Your task to perform on an android device: Empty the shopping cart on amazon. Add duracell triple a to the cart on amazon, then select checkout. Image 0: 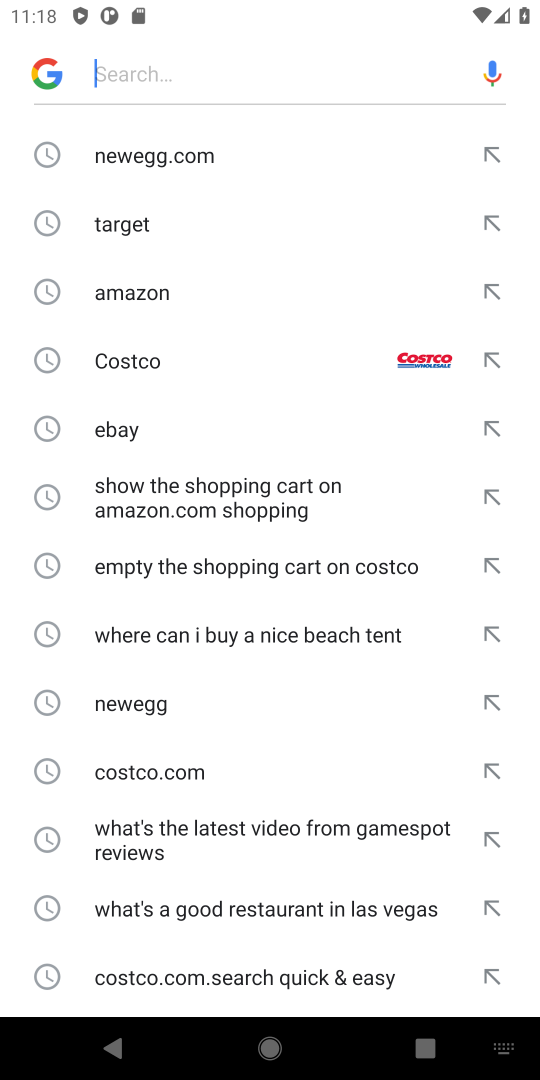
Step 0: type "amazon"
Your task to perform on an android device: Empty the shopping cart on amazon. Add duracell triple a to the cart on amazon, then select checkout. Image 1: 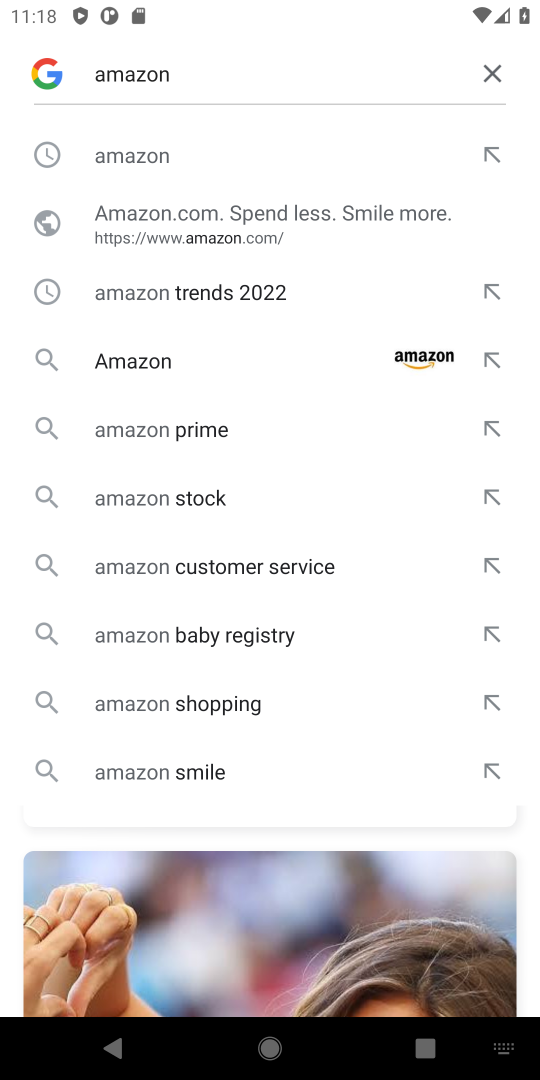
Step 1: type ""
Your task to perform on an android device: Empty the shopping cart on amazon. Add duracell triple a to the cart on amazon, then select checkout. Image 2: 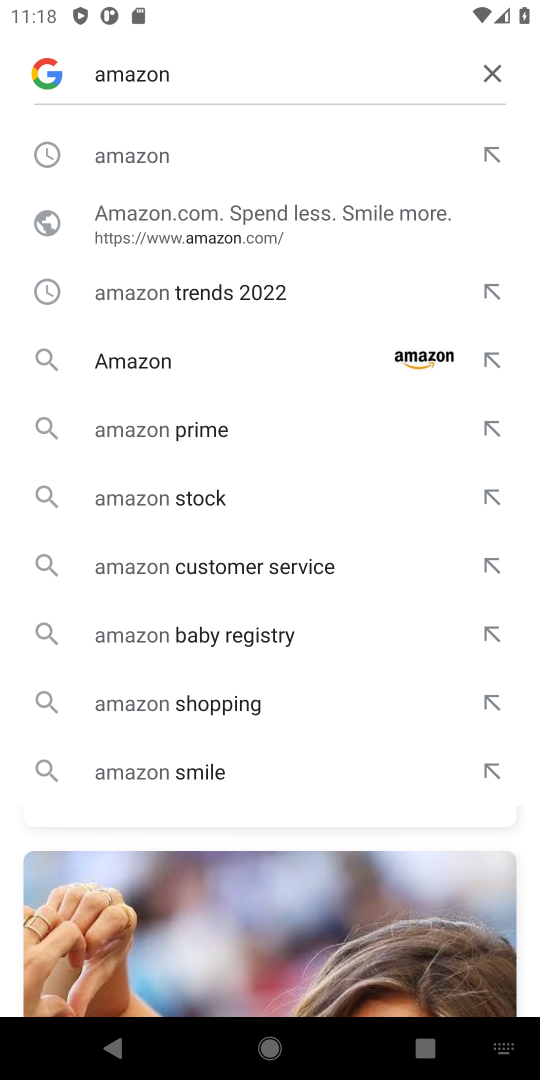
Step 2: press enter
Your task to perform on an android device: Empty the shopping cart on amazon. Add duracell triple a to the cart on amazon, then select checkout. Image 3: 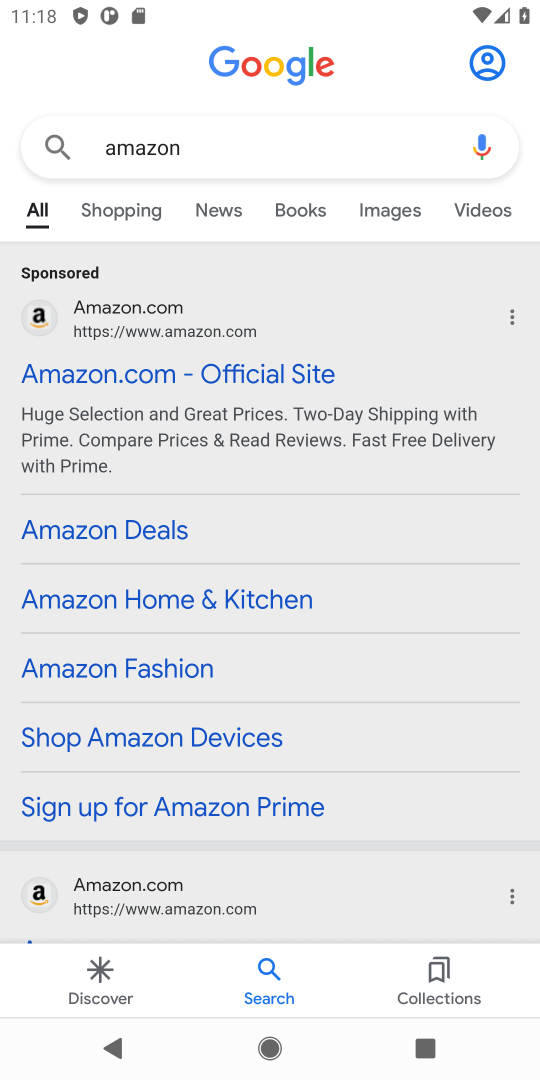
Step 3: click (158, 380)
Your task to perform on an android device: Empty the shopping cart on amazon. Add duracell triple a to the cart on amazon, then select checkout. Image 4: 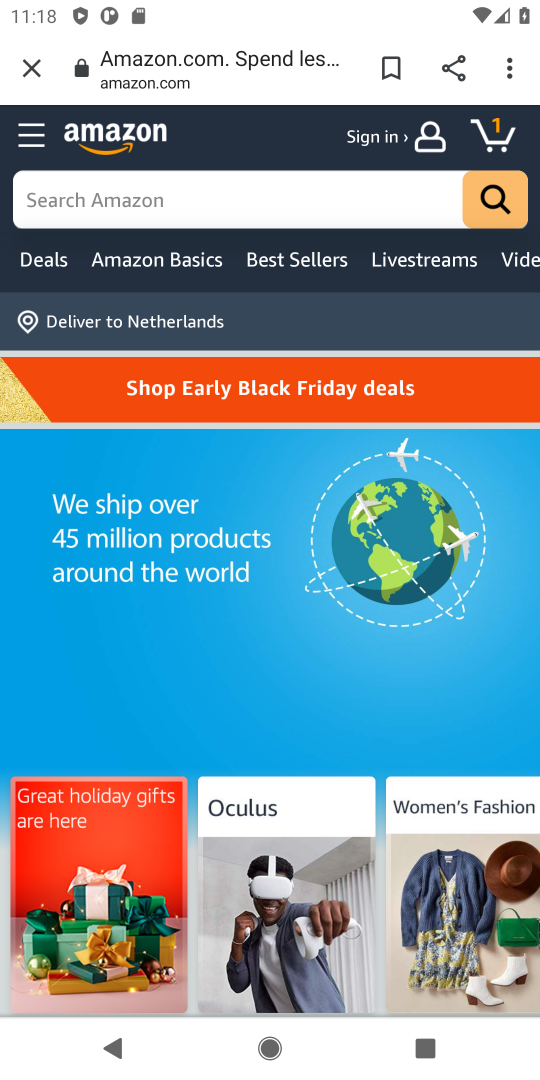
Step 4: click (481, 134)
Your task to perform on an android device: Empty the shopping cart on amazon. Add duracell triple a to the cart on amazon, then select checkout. Image 5: 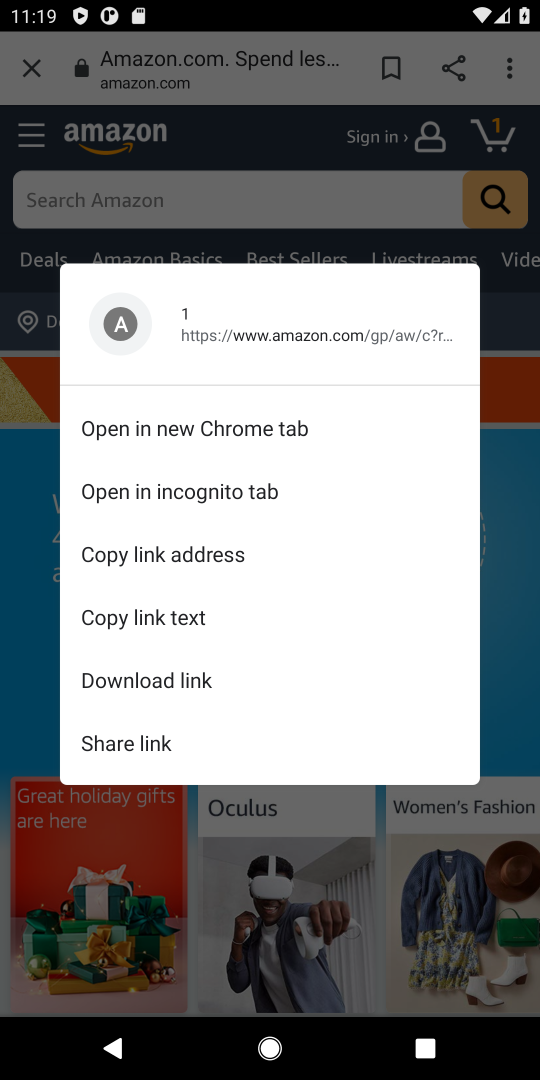
Step 5: click (521, 450)
Your task to perform on an android device: Empty the shopping cart on amazon. Add duracell triple a to the cart on amazon, then select checkout. Image 6: 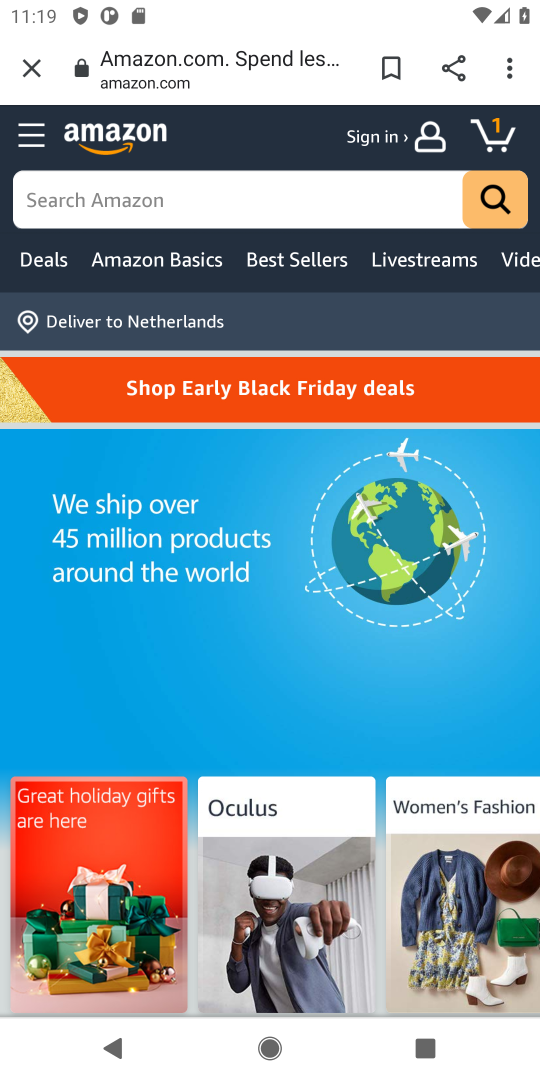
Step 6: click (494, 162)
Your task to perform on an android device: Empty the shopping cart on amazon. Add duracell triple a to the cart on amazon, then select checkout. Image 7: 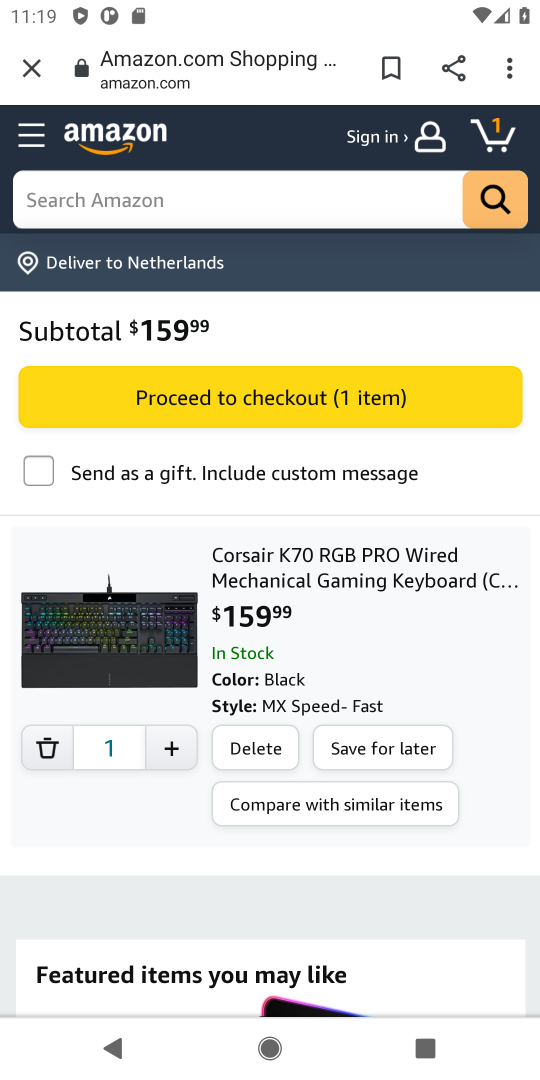
Step 7: click (39, 750)
Your task to perform on an android device: Empty the shopping cart on amazon. Add duracell triple a to the cart on amazon, then select checkout. Image 8: 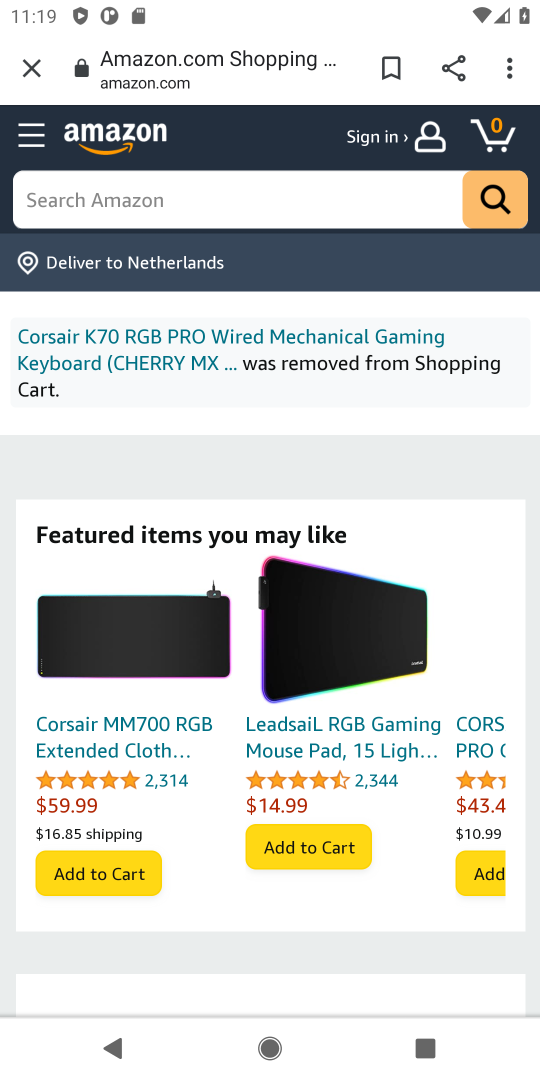
Step 8: click (199, 194)
Your task to perform on an android device: Empty the shopping cart on amazon. Add duracell triple a to the cart on amazon, then select checkout. Image 9: 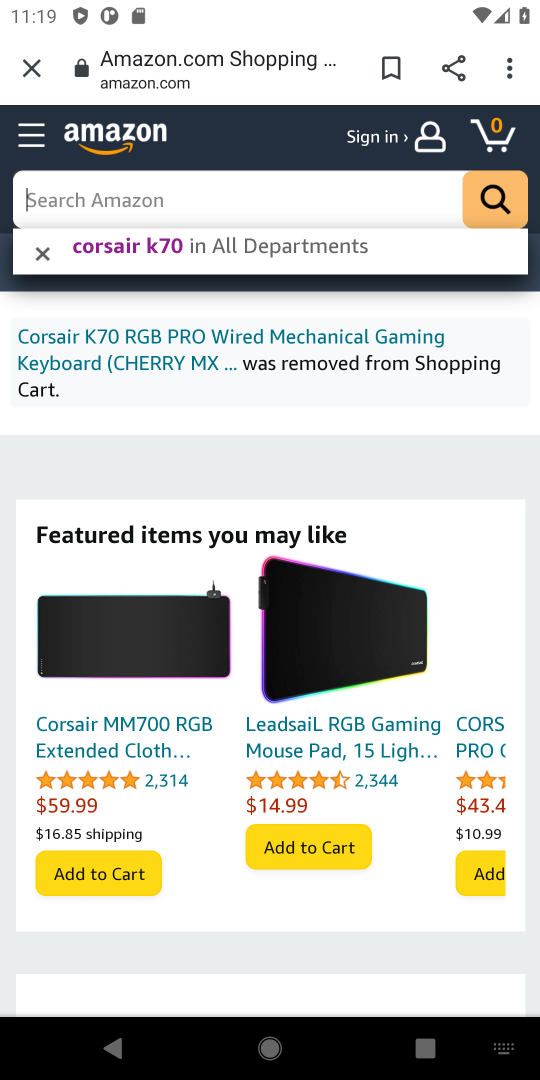
Step 9: type "duracell triple a"
Your task to perform on an android device: Empty the shopping cart on amazon. Add duracell triple a to the cart on amazon, then select checkout. Image 10: 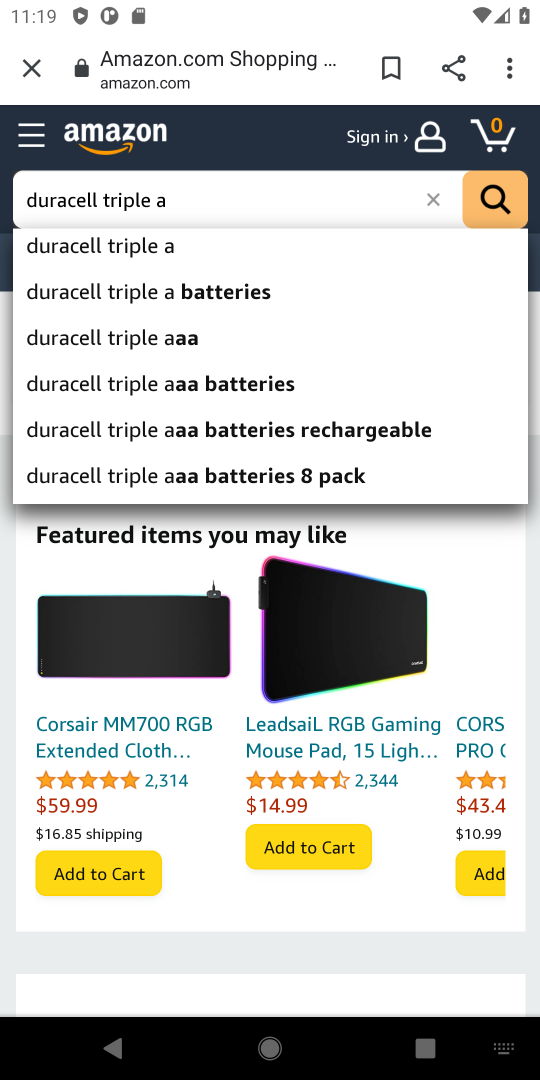
Step 10: press enter
Your task to perform on an android device: Empty the shopping cart on amazon. Add duracell triple a to the cart on amazon, then select checkout. Image 11: 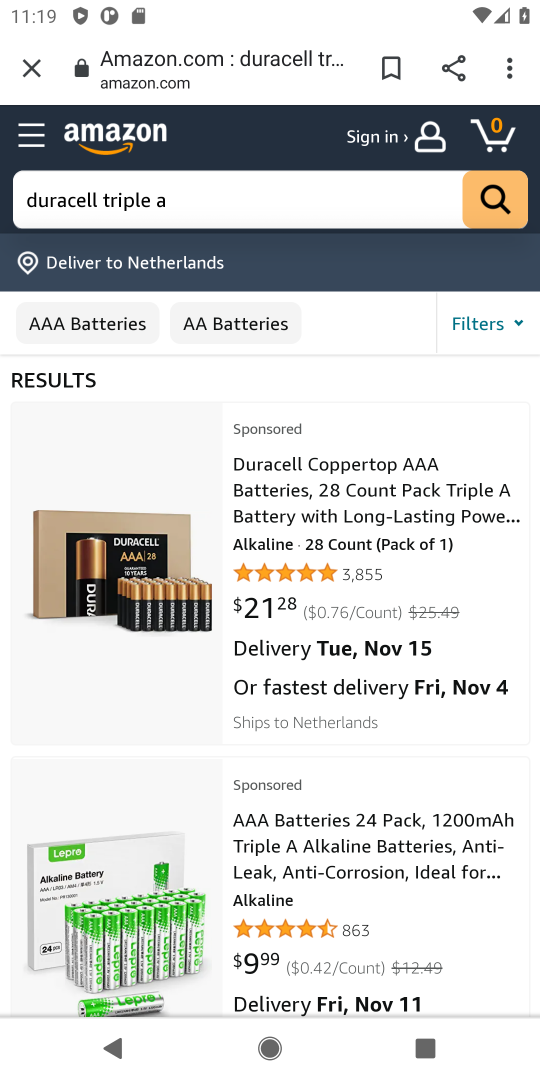
Step 11: click (378, 512)
Your task to perform on an android device: Empty the shopping cart on amazon. Add duracell triple a to the cart on amazon, then select checkout. Image 12: 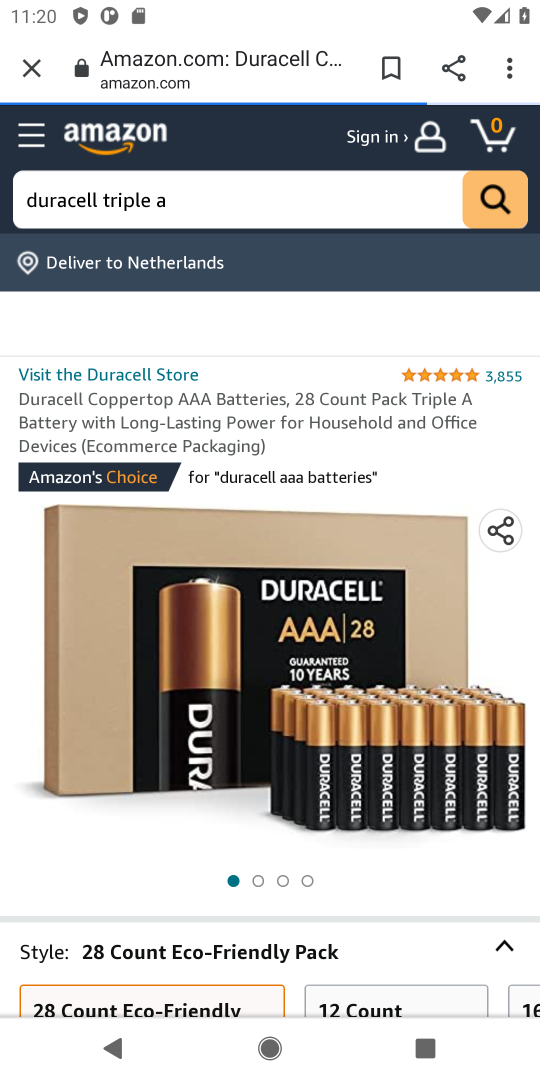
Step 12: drag from (195, 853) to (274, 222)
Your task to perform on an android device: Empty the shopping cart on amazon. Add duracell triple a to the cart on amazon, then select checkout. Image 13: 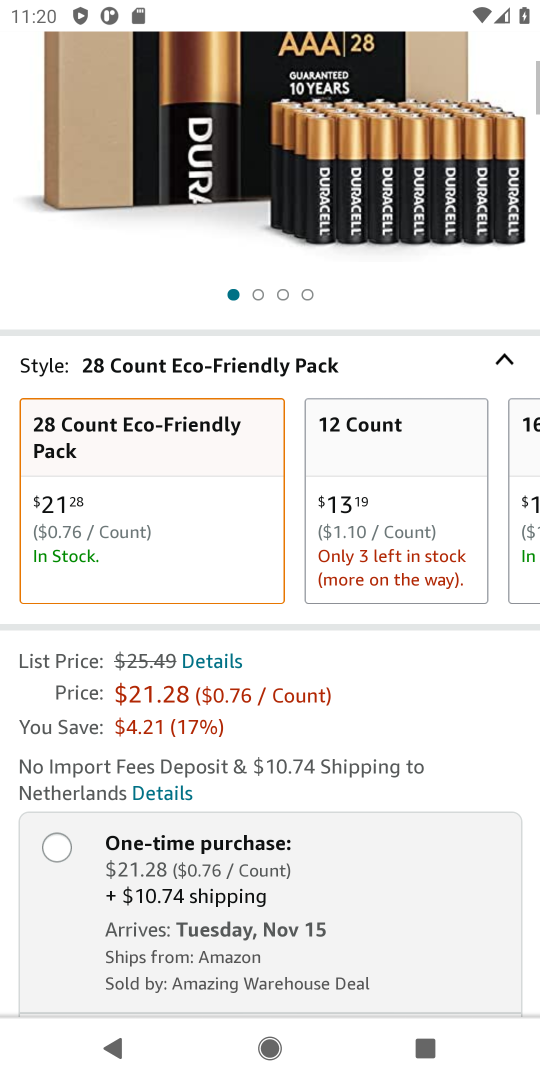
Step 13: drag from (313, 860) to (266, 280)
Your task to perform on an android device: Empty the shopping cart on amazon. Add duracell triple a to the cart on amazon, then select checkout. Image 14: 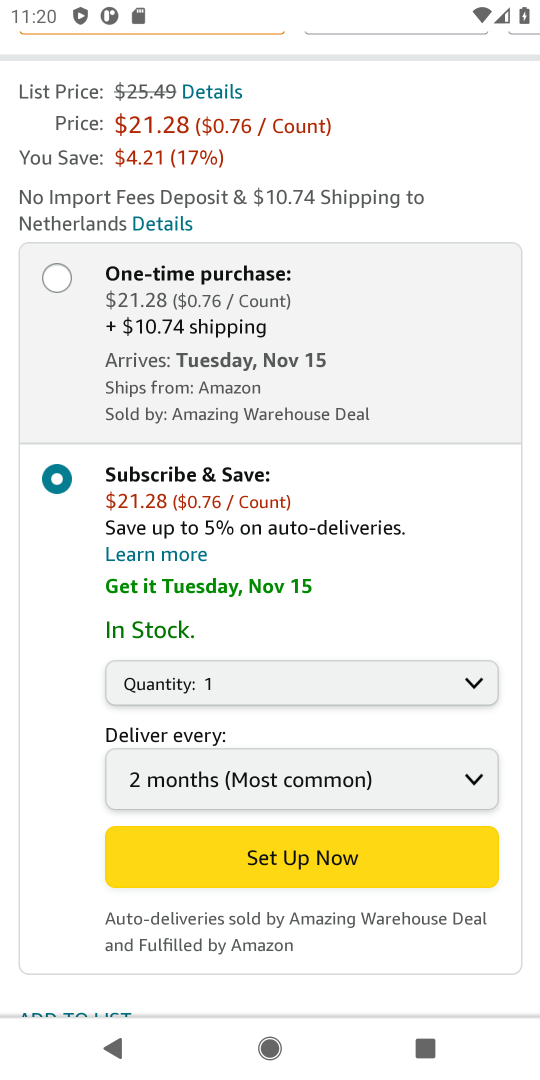
Step 14: drag from (307, 870) to (257, 579)
Your task to perform on an android device: Empty the shopping cart on amazon. Add duracell triple a to the cart on amazon, then select checkout. Image 15: 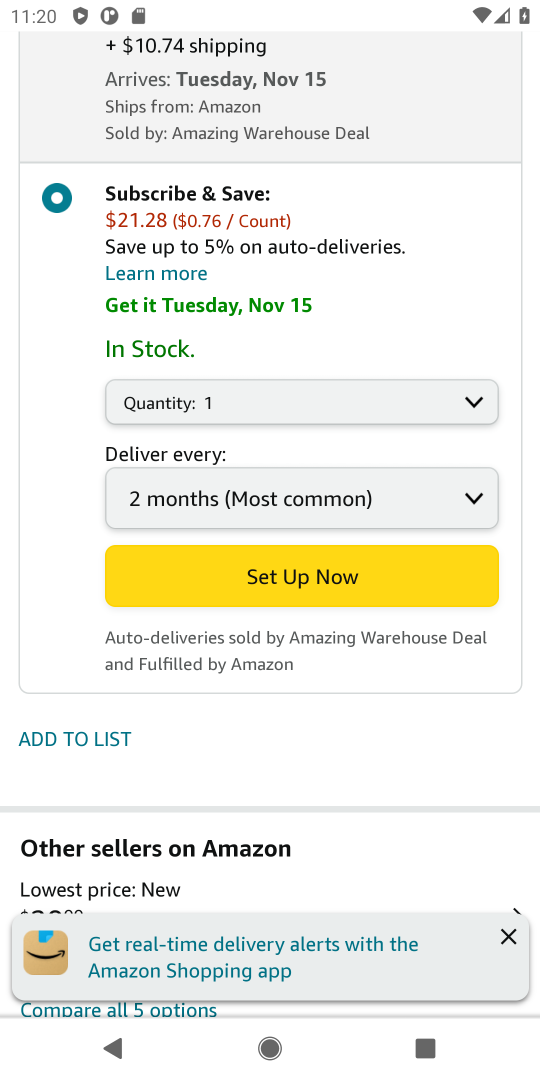
Step 15: click (300, 581)
Your task to perform on an android device: Empty the shopping cart on amazon. Add duracell triple a to the cart on amazon, then select checkout. Image 16: 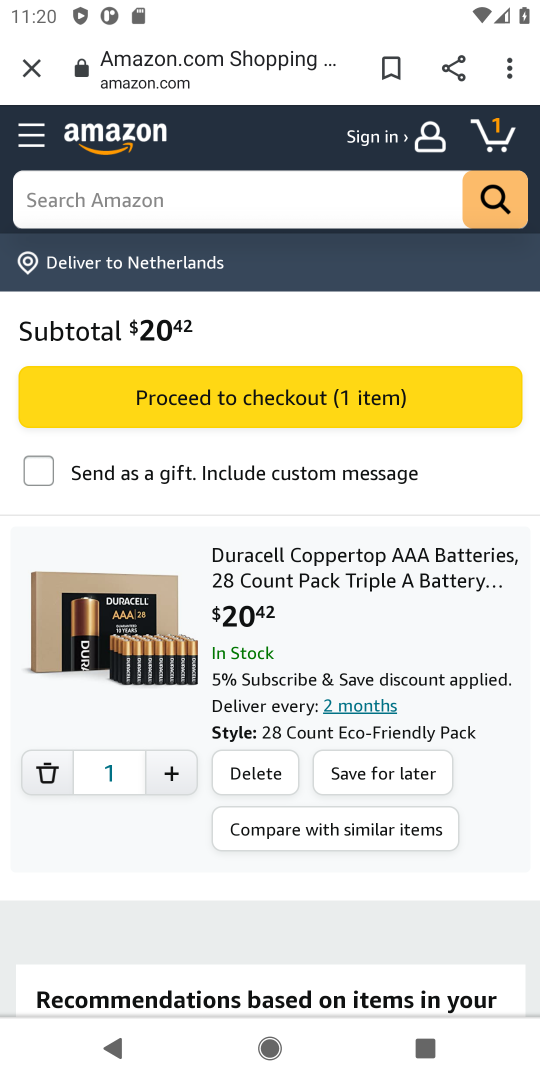
Step 16: click (337, 382)
Your task to perform on an android device: Empty the shopping cart on amazon. Add duracell triple a to the cart on amazon, then select checkout. Image 17: 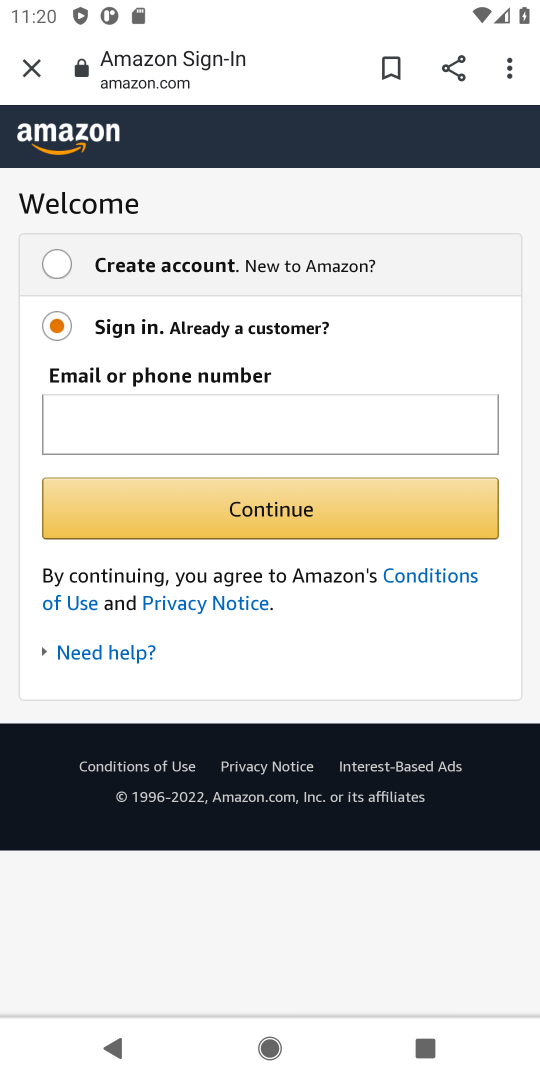
Step 17: task complete